Your task to perform on an android device: Open battery settings Image 0: 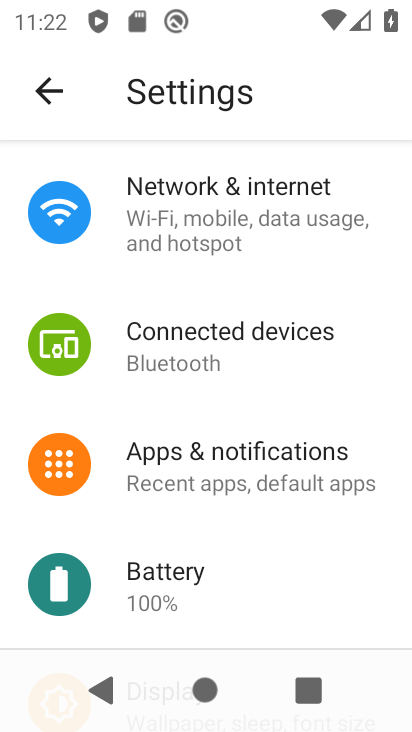
Step 0: click (165, 589)
Your task to perform on an android device: Open battery settings Image 1: 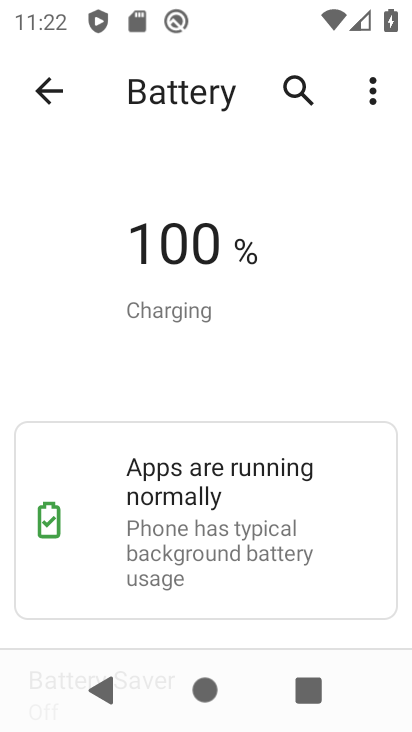
Step 1: task complete